Your task to perform on an android device: Find coffee shops on Maps Image 0: 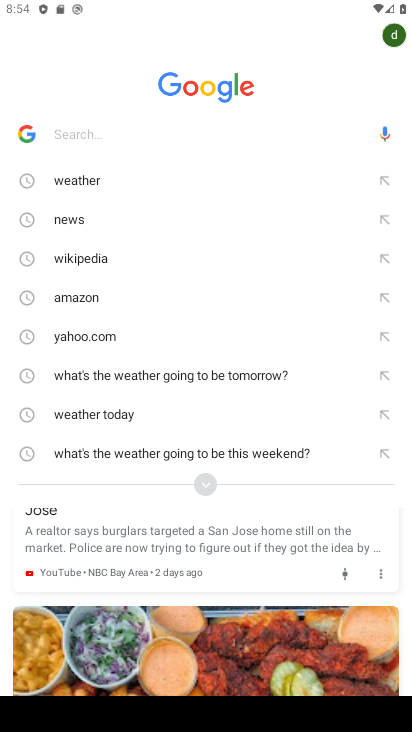
Step 0: press home button
Your task to perform on an android device: Find coffee shops on Maps Image 1: 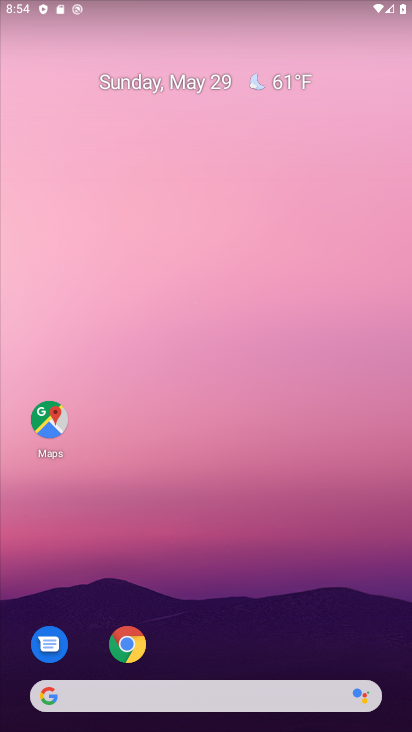
Step 1: click (38, 423)
Your task to perform on an android device: Find coffee shops on Maps Image 2: 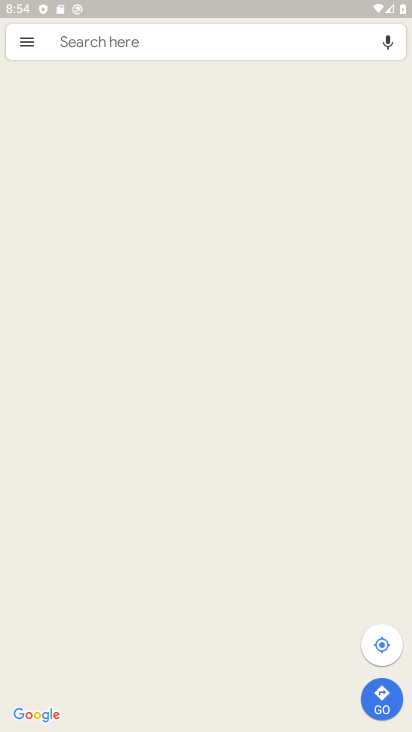
Step 2: click (235, 35)
Your task to perform on an android device: Find coffee shops on Maps Image 3: 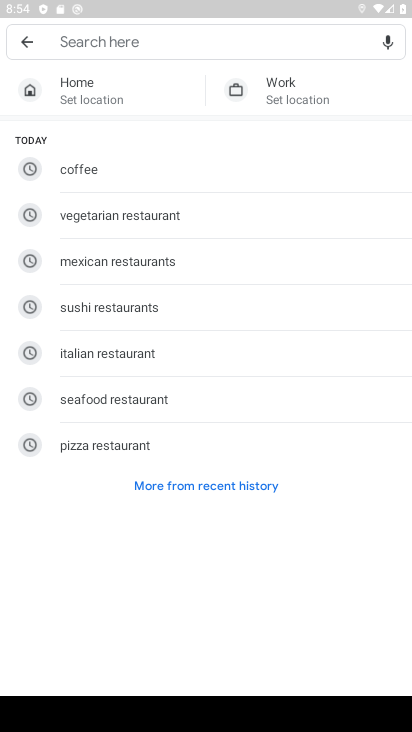
Step 3: type "coffee shops"
Your task to perform on an android device: Find coffee shops on Maps Image 4: 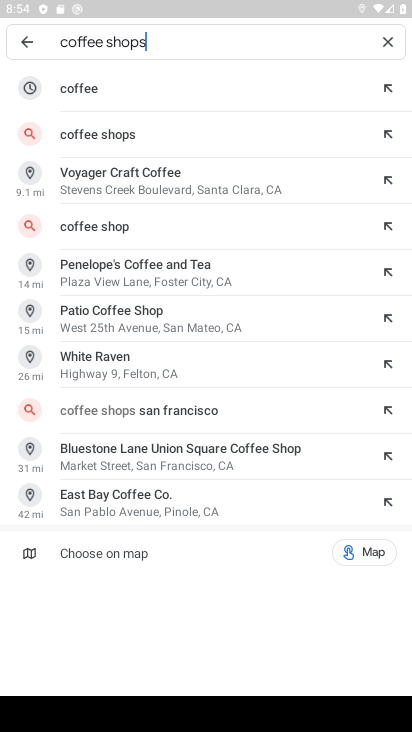
Step 4: click (142, 136)
Your task to perform on an android device: Find coffee shops on Maps Image 5: 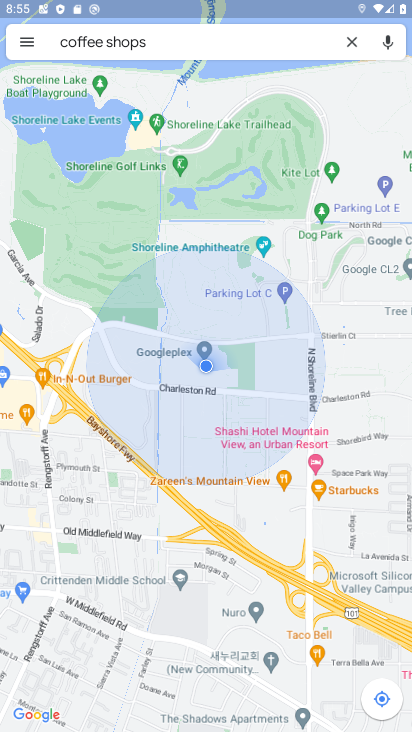
Step 5: click (142, 136)
Your task to perform on an android device: Find coffee shops on Maps Image 6: 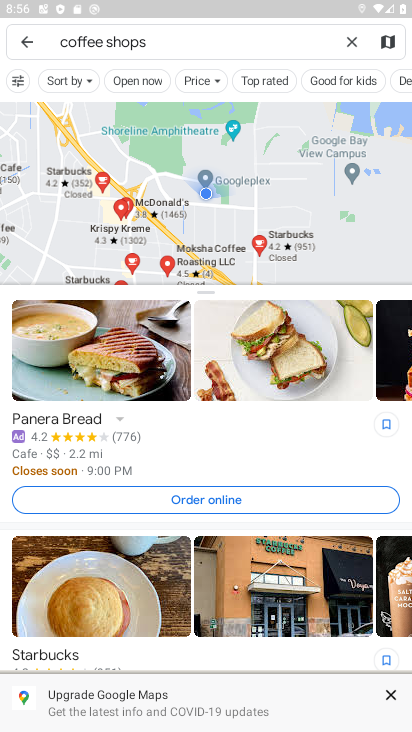
Step 6: task complete